Your task to perform on an android device: see sites visited before in the chrome app Image 0: 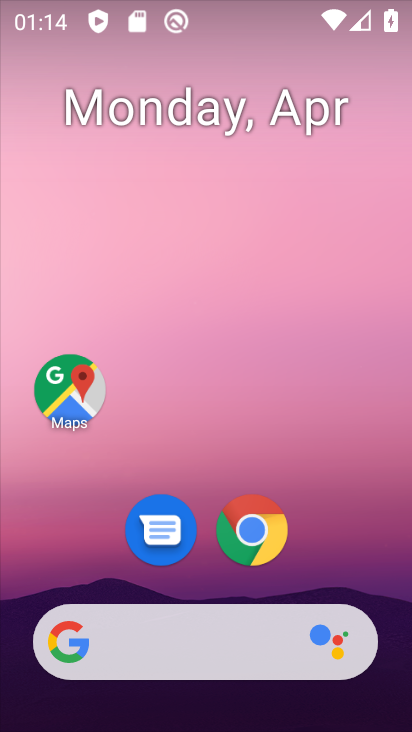
Step 0: click (249, 533)
Your task to perform on an android device: see sites visited before in the chrome app Image 1: 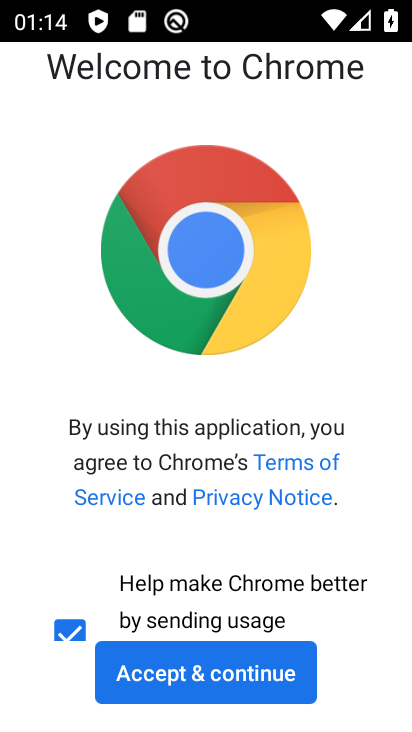
Step 1: click (215, 667)
Your task to perform on an android device: see sites visited before in the chrome app Image 2: 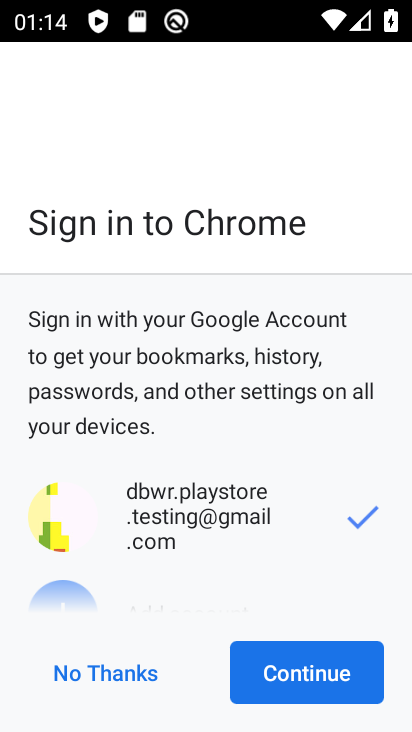
Step 2: click (270, 678)
Your task to perform on an android device: see sites visited before in the chrome app Image 3: 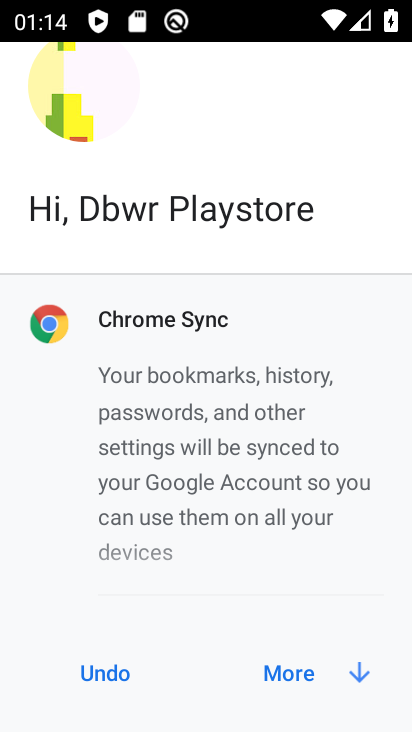
Step 3: click (300, 682)
Your task to perform on an android device: see sites visited before in the chrome app Image 4: 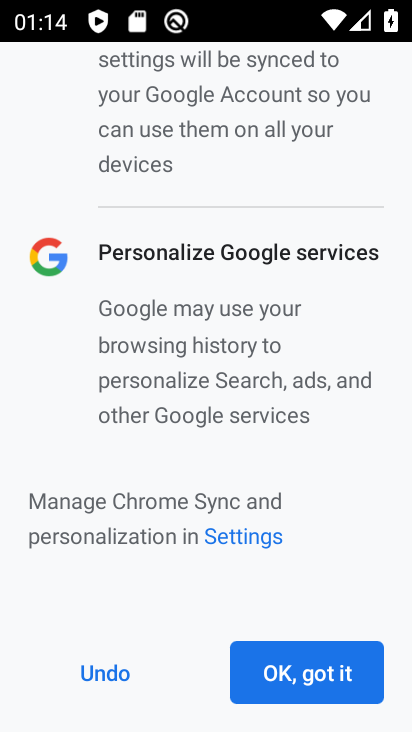
Step 4: click (308, 679)
Your task to perform on an android device: see sites visited before in the chrome app Image 5: 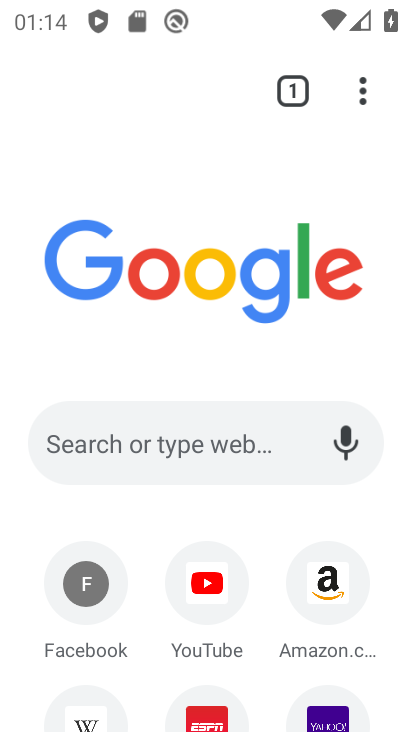
Step 5: click (364, 94)
Your task to perform on an android device: see sites visited before in the chrome app Image 6: 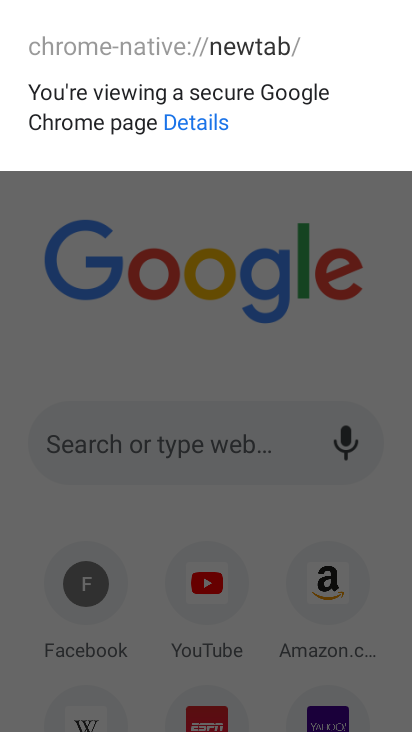
Step 6: click (380, 212)
Your task to perform on an android device: see sites visited before in the chrome app Image 7: 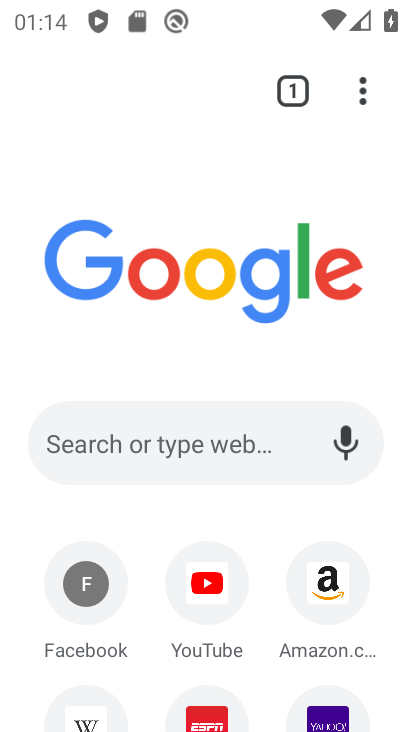
Step 7: click (360, 103)
Your task to perform on an android device: see sites visited before in the chrome app Image 8: 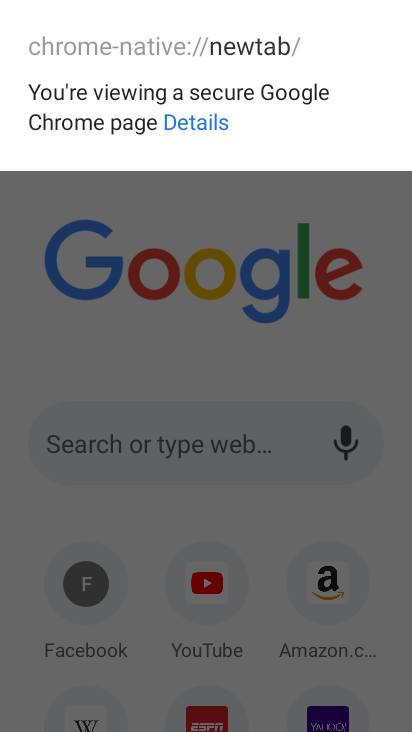
Step 8: click (325, 207)
Your task to perform on an android device: see sites visited before in the chrome app Image 9: 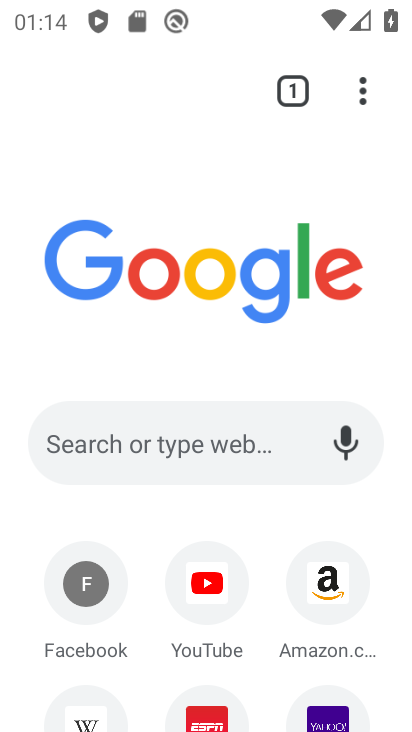
Step 9: click (359, 104)
Your task to perform on an android device: see sites visited before in the chrome app Image 10: 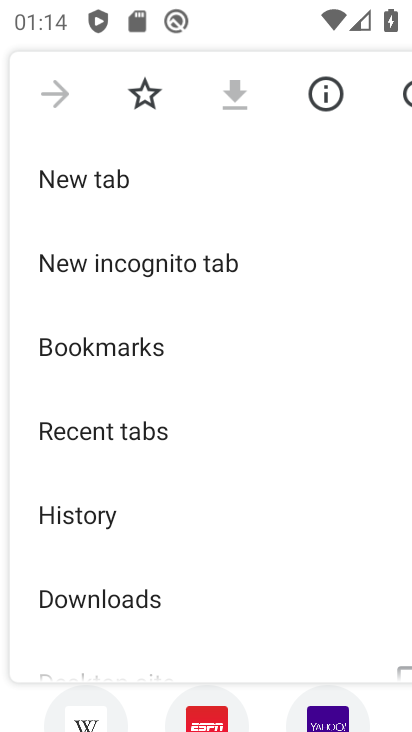
Step 10: click (91, 506)
Your task to perform on an android device: see sites visited before in the chrome app Image 11: 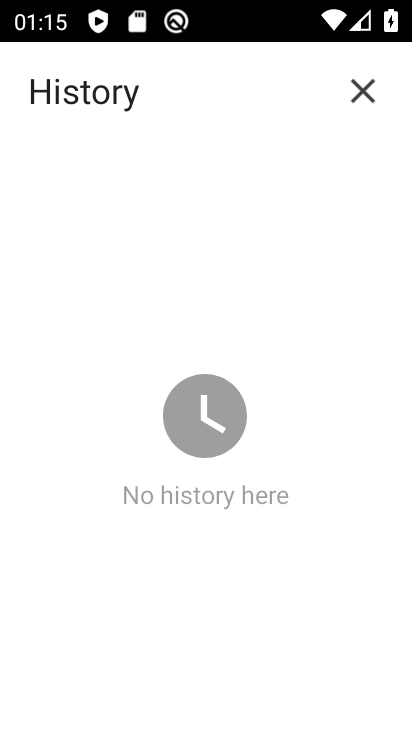
Step 11: task complete